Your task to perform on an android device: check storage Image 0: 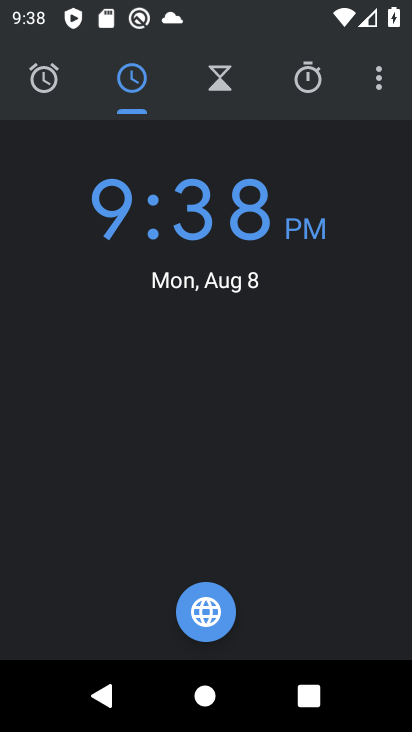
Step 0: press home button
Your task to perform on an android device: check storage Image 1: 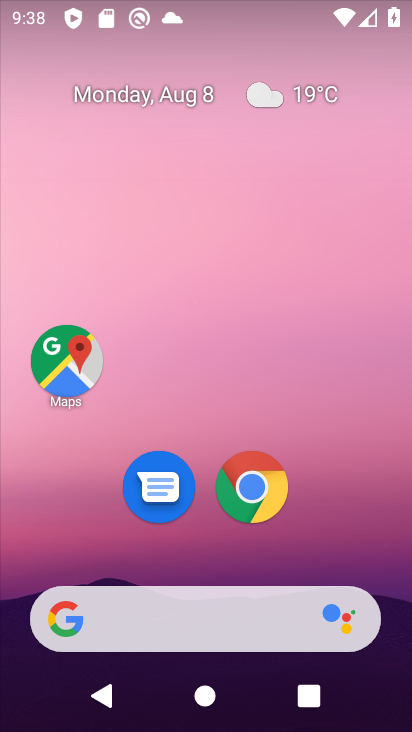
Step 1: drag from (196, 578) to (216, 83)
Your task to perform on an android device: check storage Image 2: 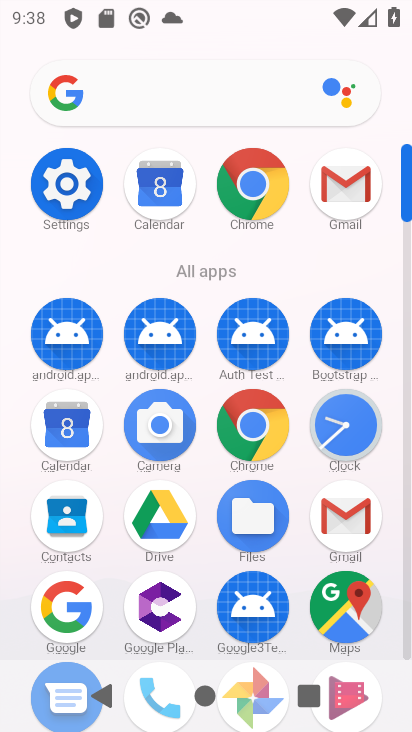
Step 2: click (66, 188)
Your task to perform on an android device: check storage Image 3: 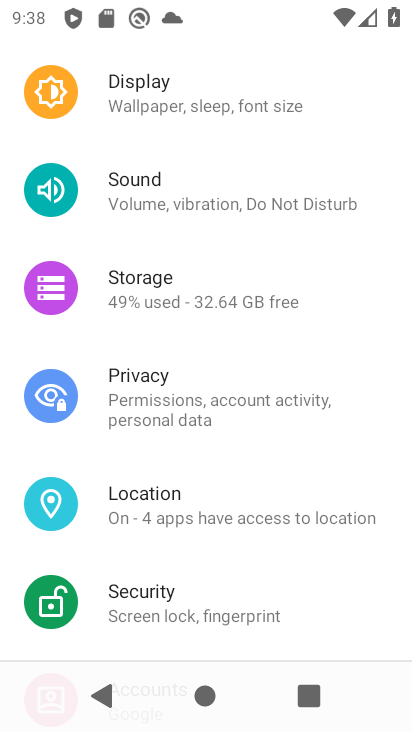
Step 3: click (150, 285)
Your task to perform on an android device: check storage Image 4: 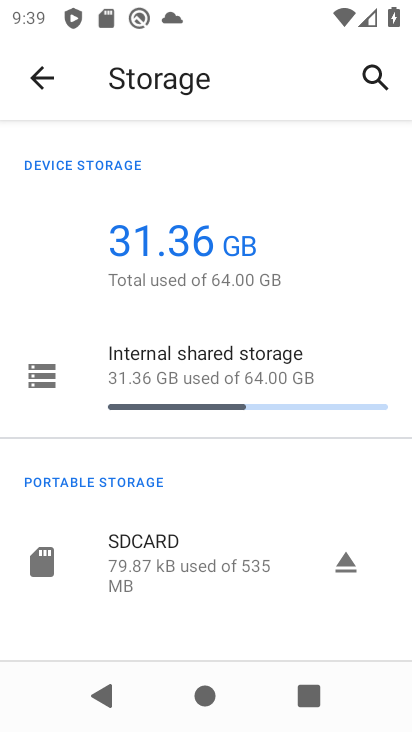
Step 4: task complete